Your task to perform on an android device: Search for the best coffee tables on Crate & Barrel Image 0: 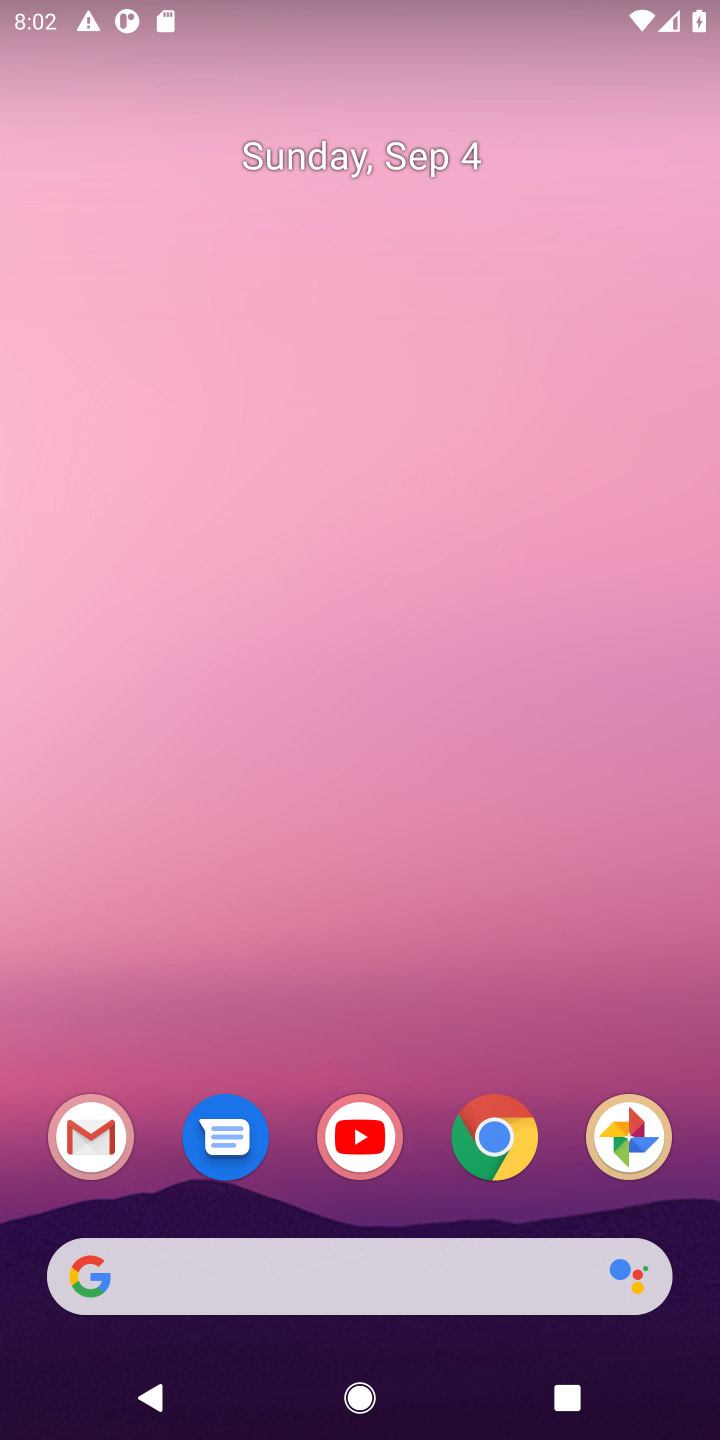
Step 0: click (494, 1134)
Your task to perform on an android device: Search for the best coffee tables on Crate & Barrel Image 1: 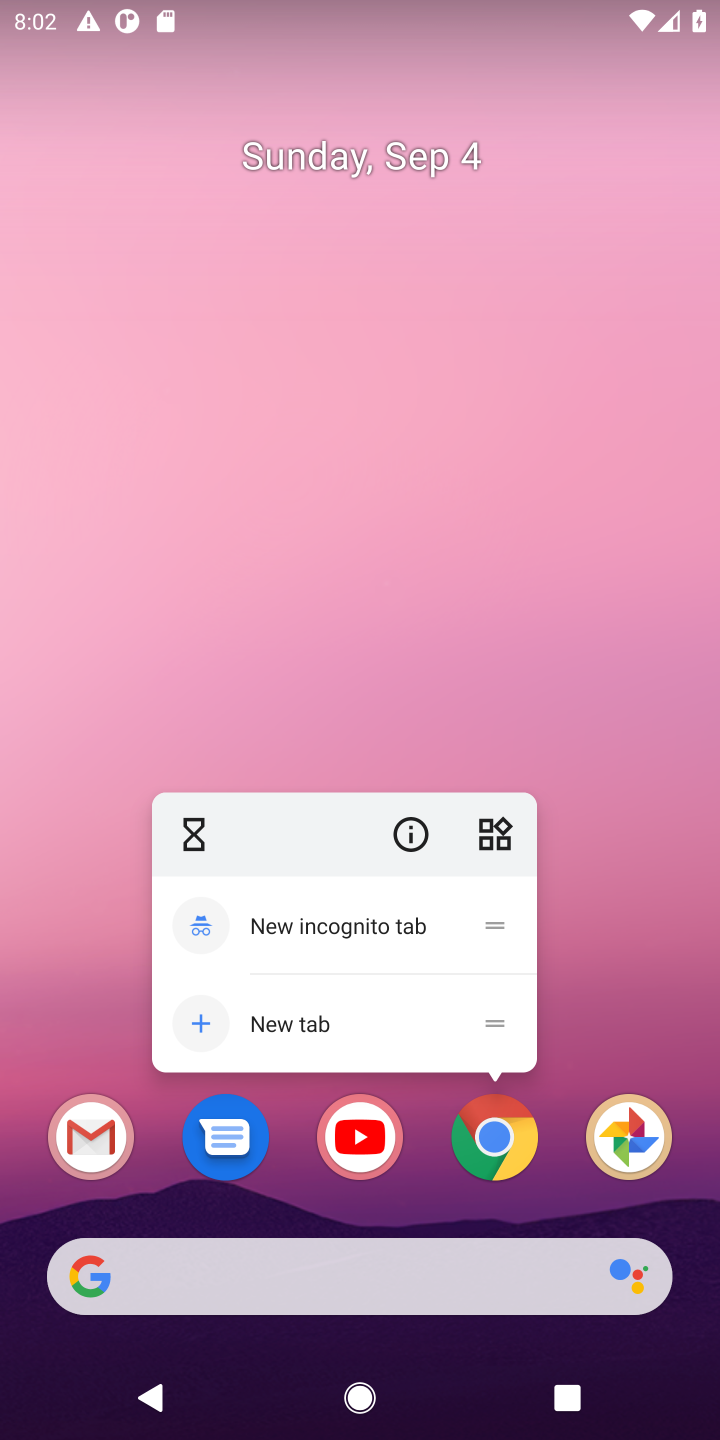
Step 1: click (496, 1141)
Your task to perform on an android device: Search for the best coffee tables on Crate & Barrel Image 2: 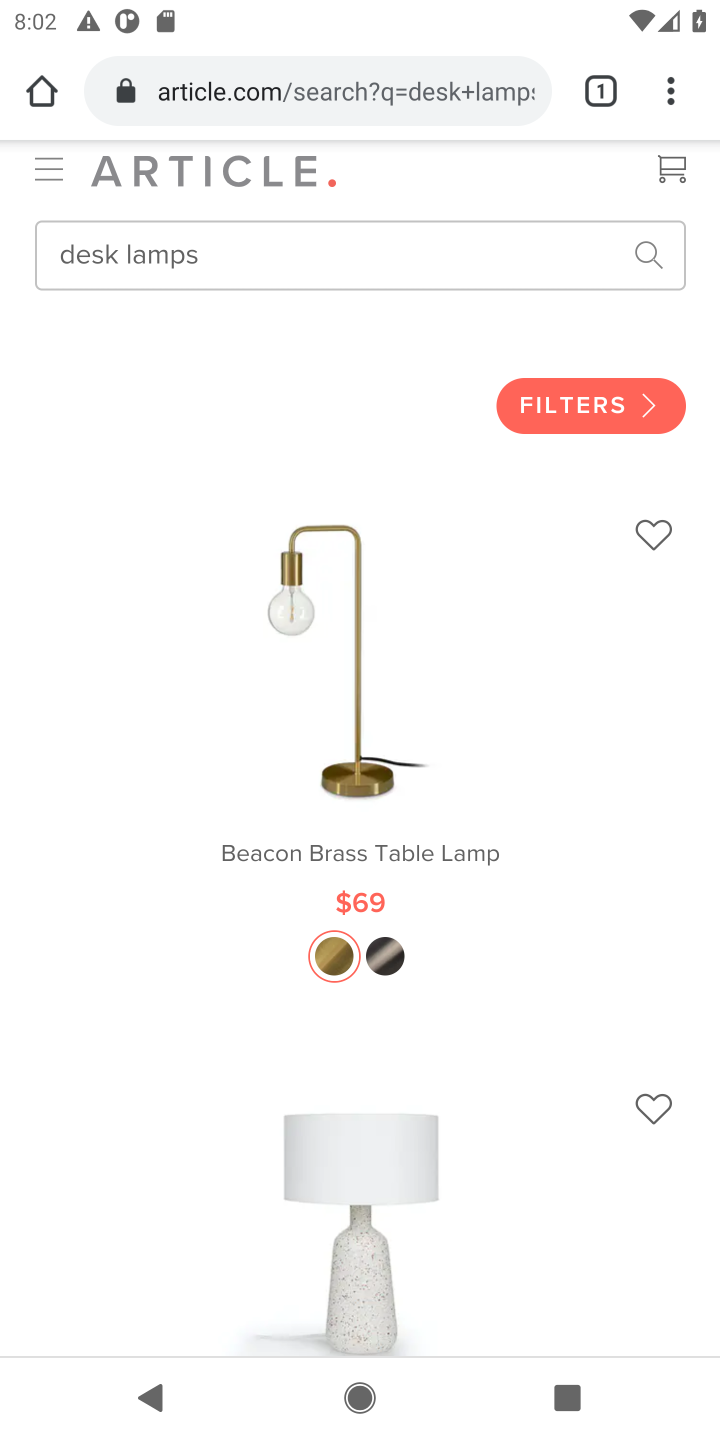
Step 2: click (374, 89)
Your task to perform on an android device: Search for the best coffee tables on Crate & Barrel Image 3: 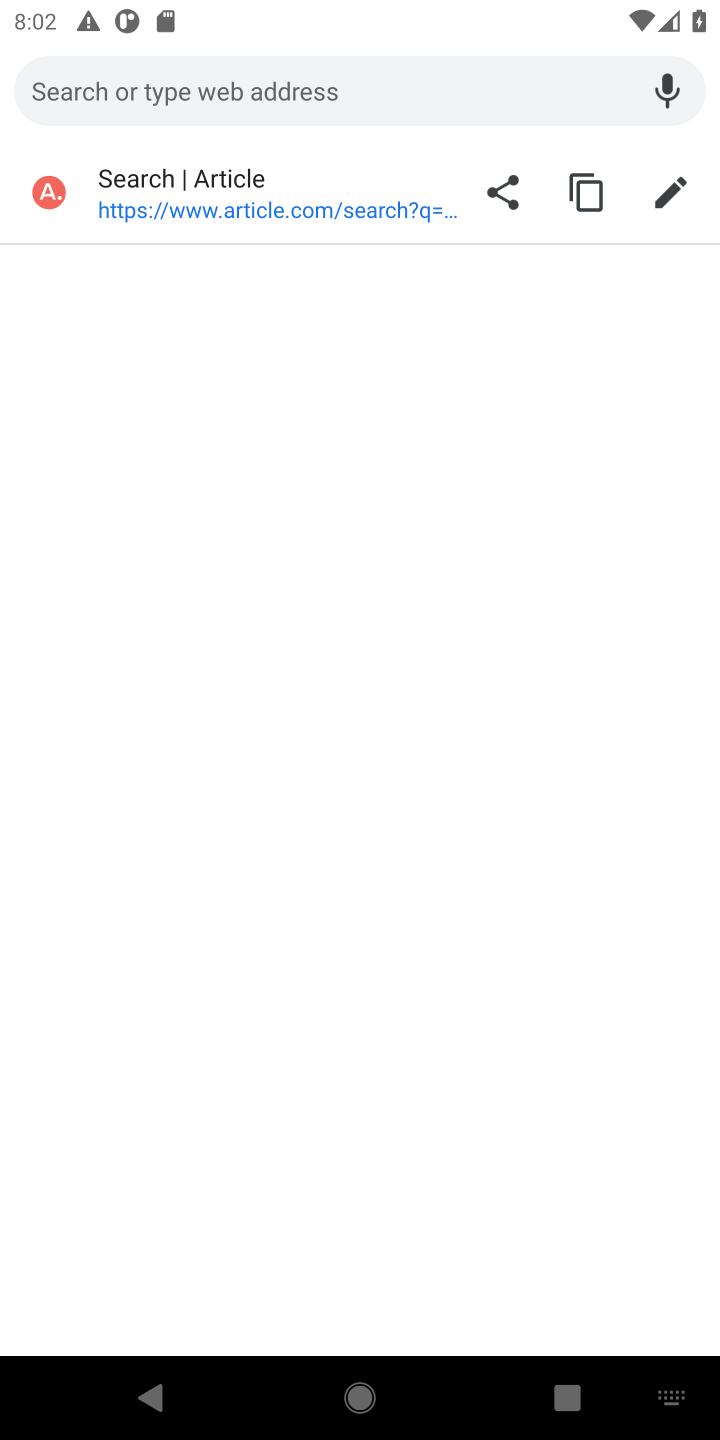
Step 3: type "Crate & Barrel"
Your task to perform on an android device: Search for the best coffee tables on Crate & Barrel Image 4: 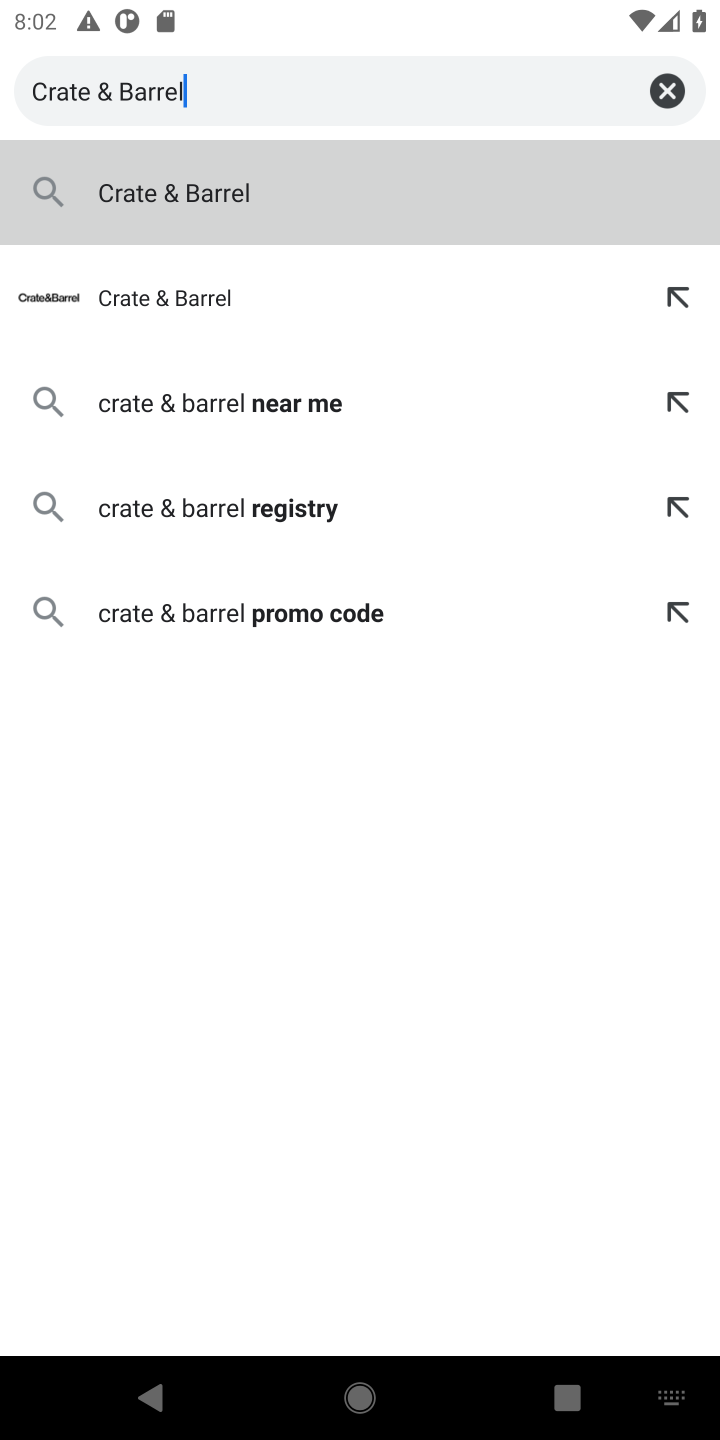
Step 4: click (189, 297)
Your task to perform on an android device: Search for the best coffee tables on Crate & Barrel Image 5: 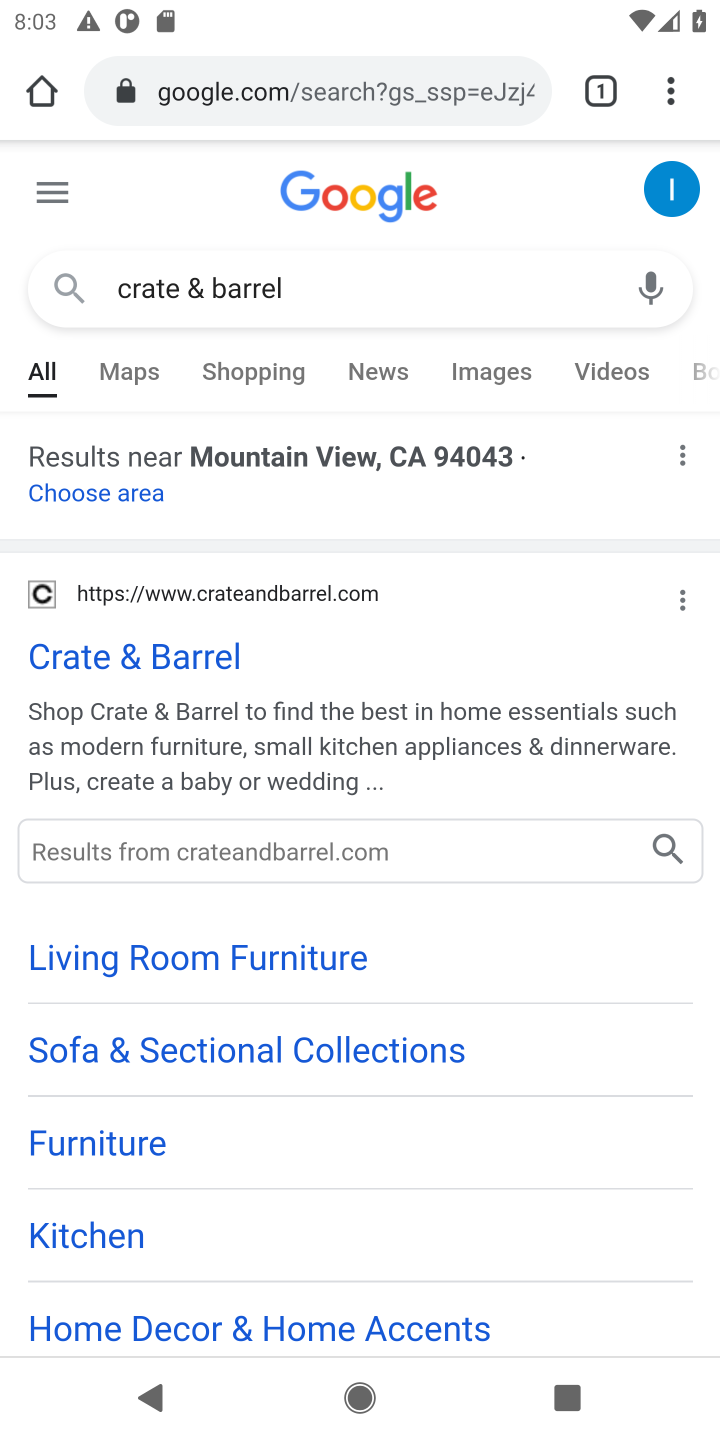
Step 5: click (141, 652)
Your task to perform on an android device: Search for the best coffee tables on Crate & Barrel Image 6: 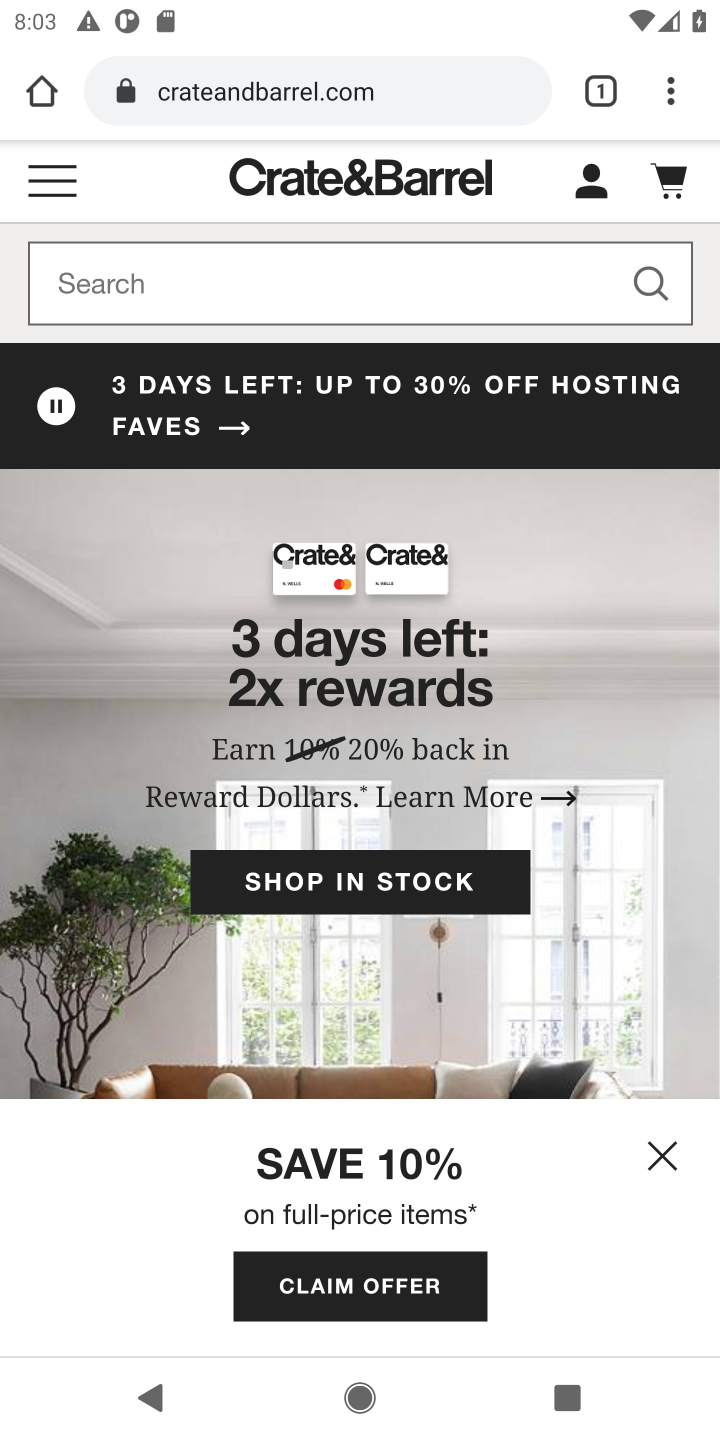
Step 6: click (212, 267)
Your task to perform on an android device: Search for the best coffee tables on Crate & Barrel Image 7: 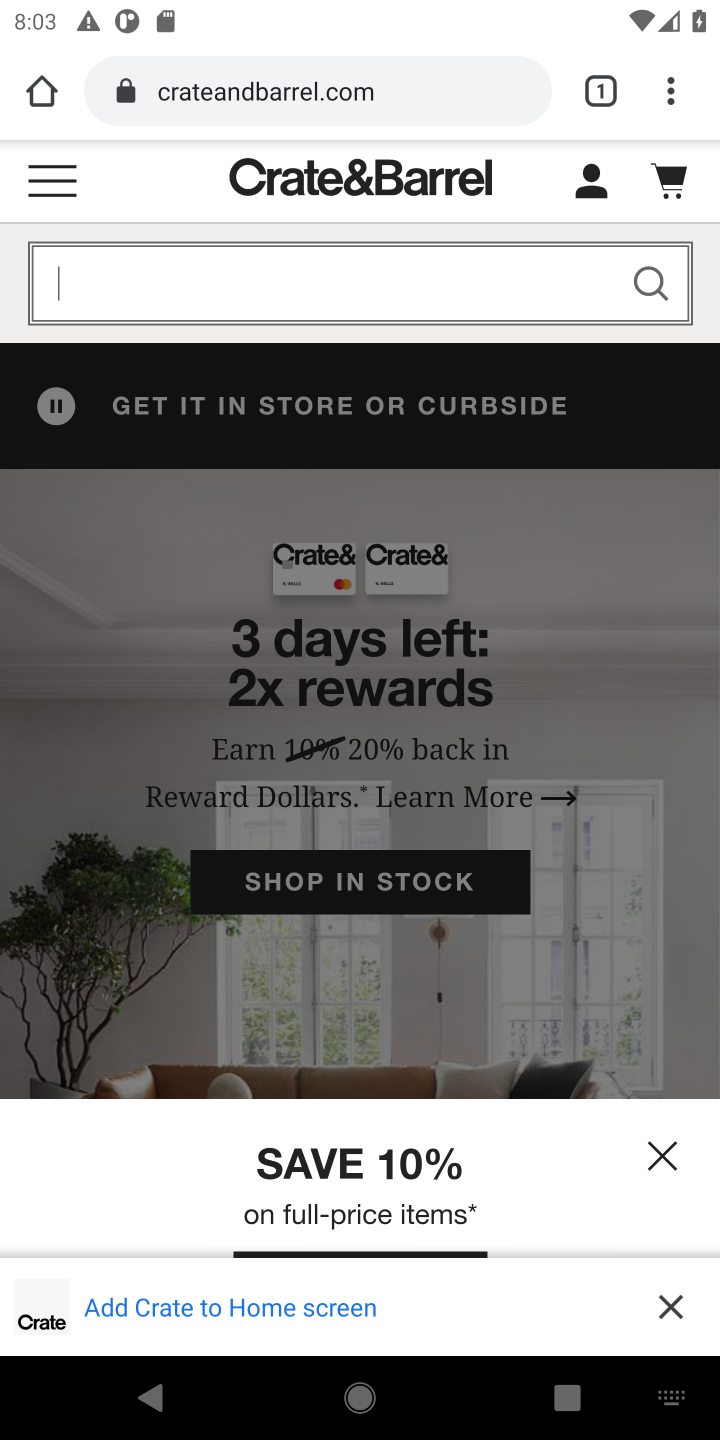
Step 7: type "best coffee tables"
Your task to perform on an android device: Search for the best coffee tables on Crate & Barrel Image 8: 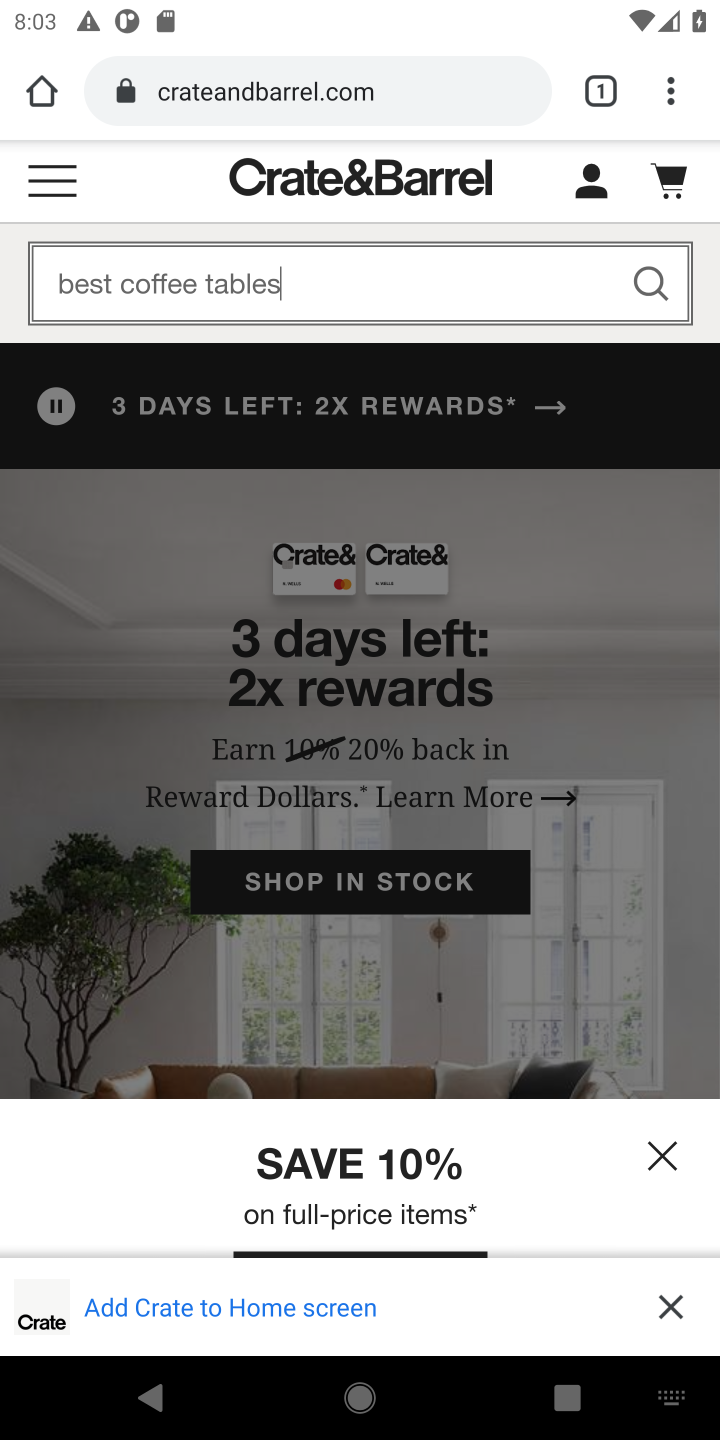
Step 8: type ""
Your task to perform on an android device: Search for the best coffee tables on Crate & Barrel Image 9: 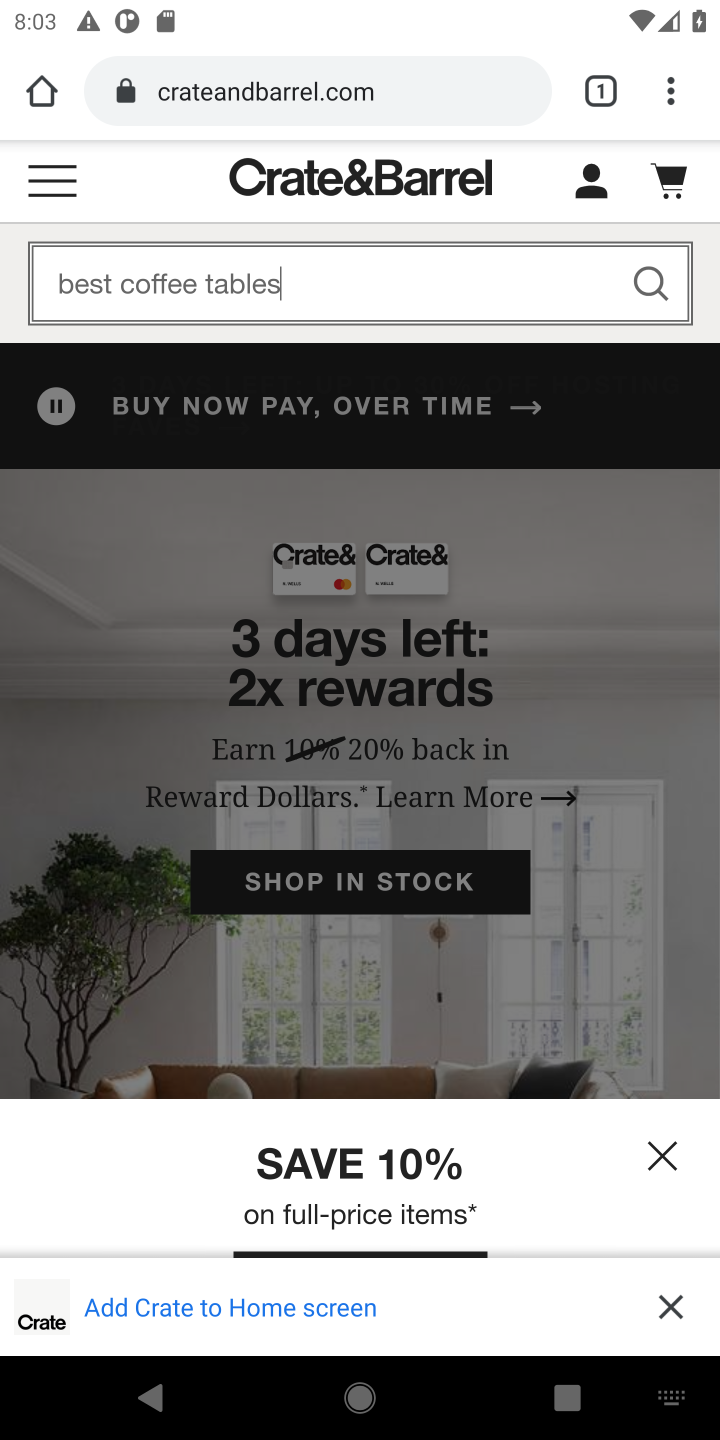
Step 9: click (649, 277)
Your task to perform on an android device: Search for the best coffee tables on Crate & Barrel Image 10: 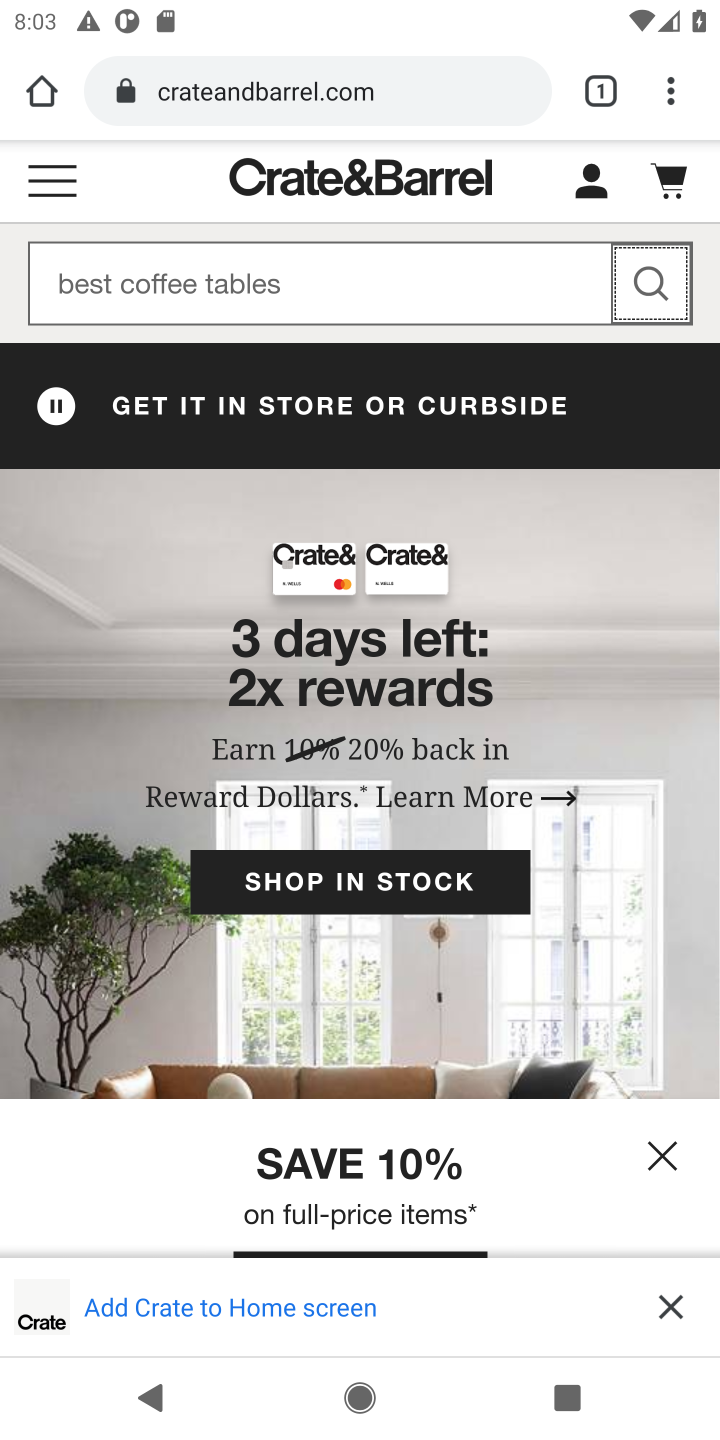
Step 10: click (674, 1304)
Your task to perform on an android device: Search for the best coffee tables on Crate & Barrel Image 11: 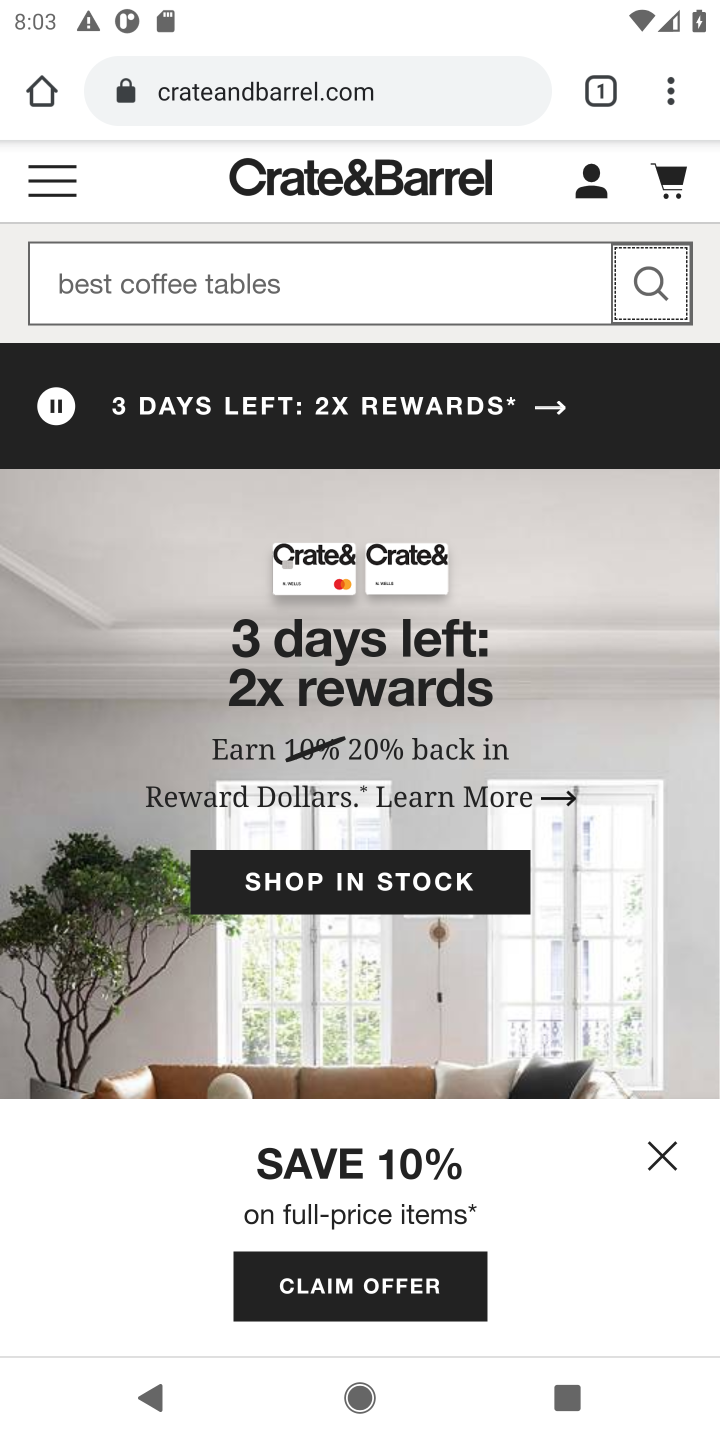
Step 11: click (656, 1155)
Your task to perform on an android device: Search for the best coffee tables on Crate & Barrel Image 12: 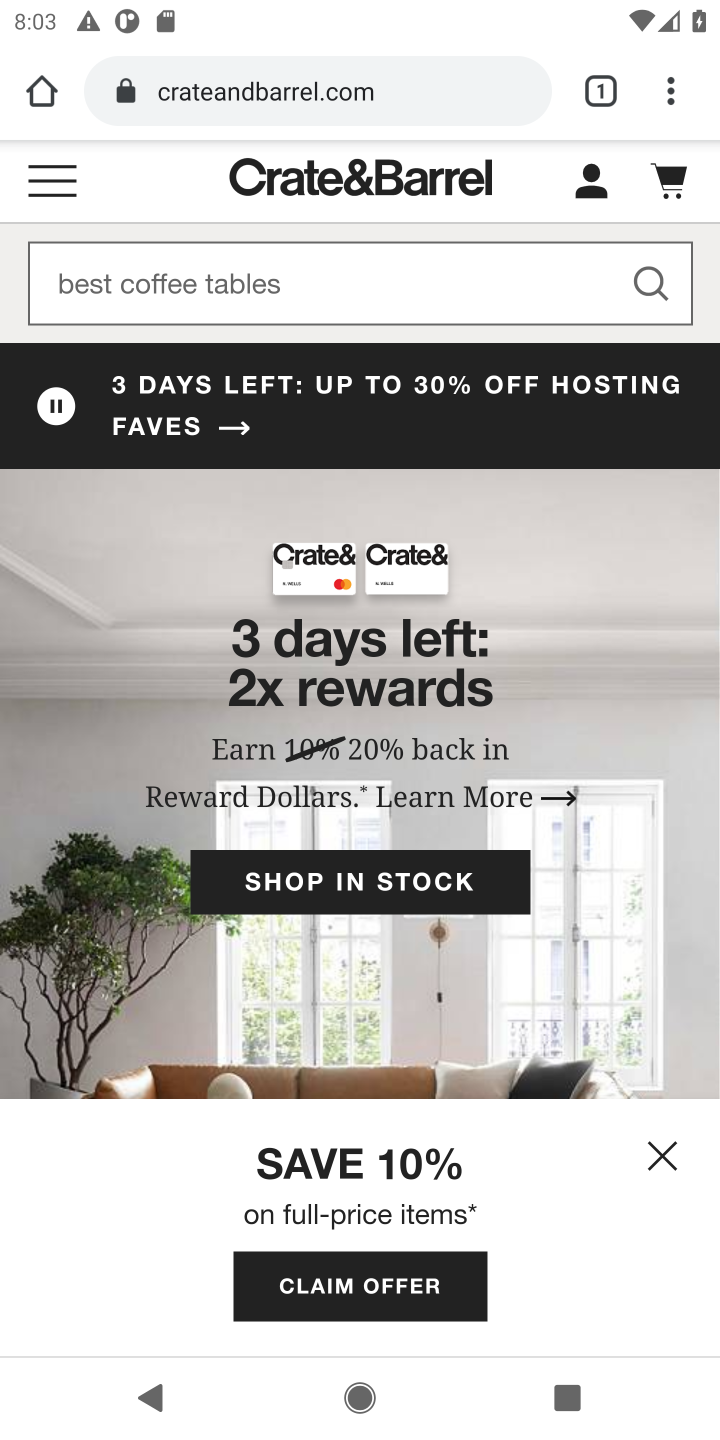
Step 12: click (661, 1153)
Your task to perform on an android device: Search for the best coffee tables on Crate & Barrel Image 13: 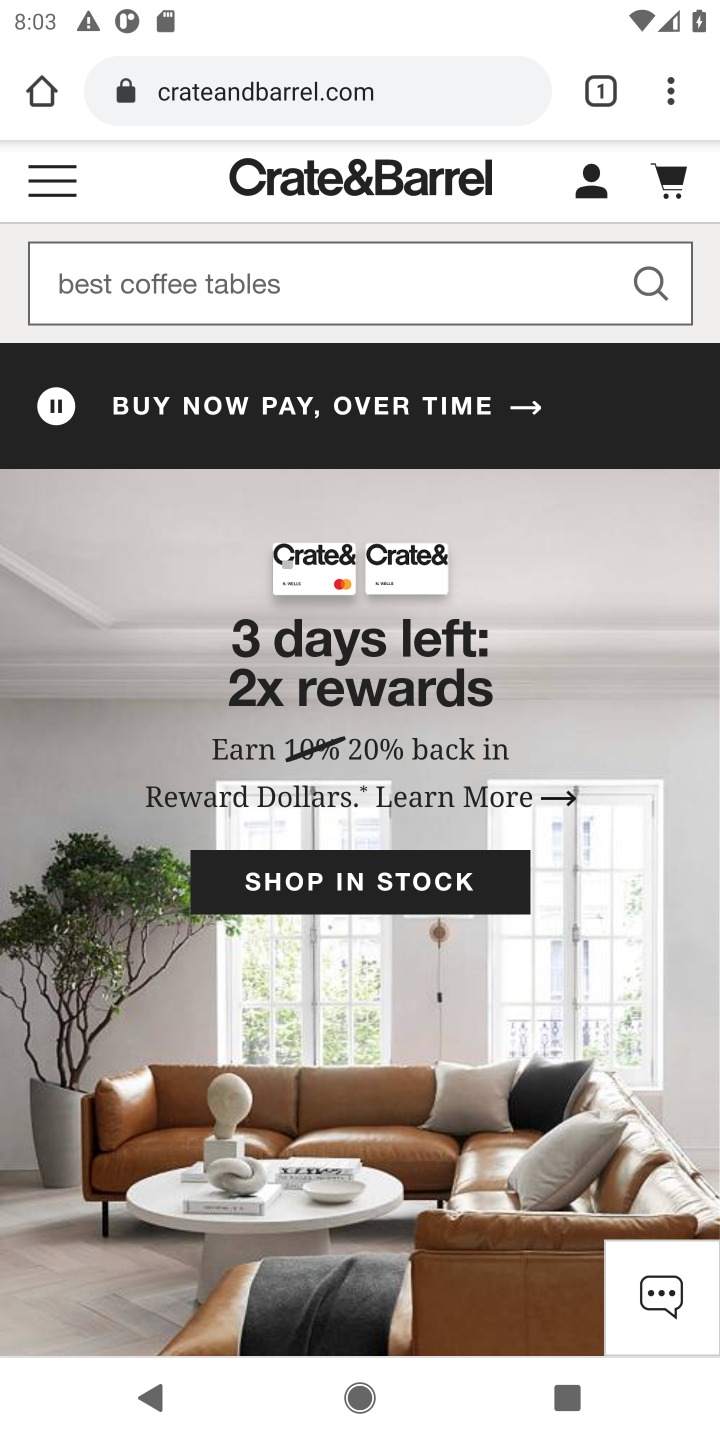
Step 13: click (667, 297)
Your task to perform on an android device: Search for the best coffee tables on Crate & Barrel Image 14: 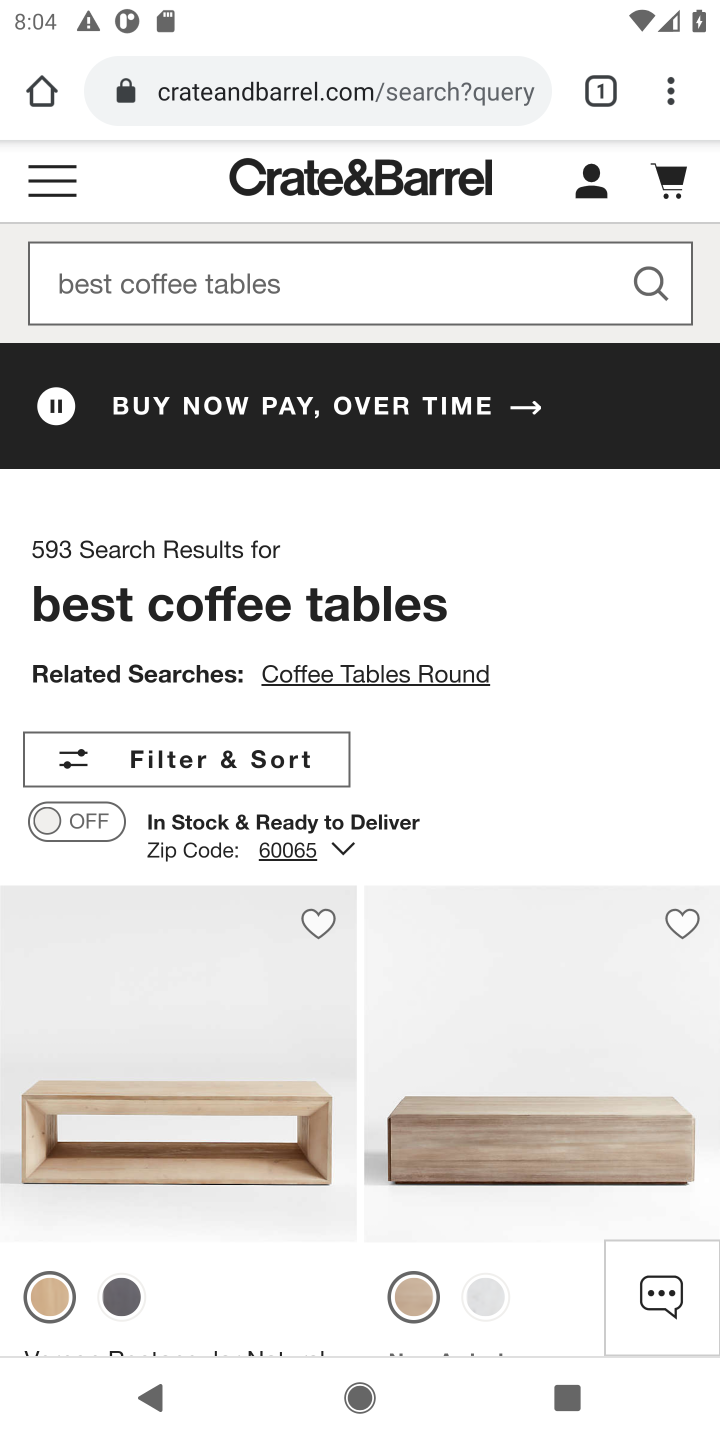
Step 14: task complete